Your task to perform on an android device: change the upload size in google photos Image 0: 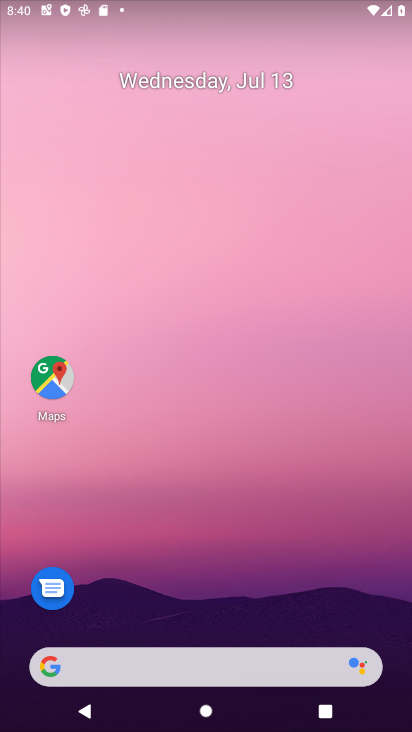
Step 0: drag from (229, 699) to (252, 31)
Your task to perform on an android device: change the upload size in google photos Image 1: 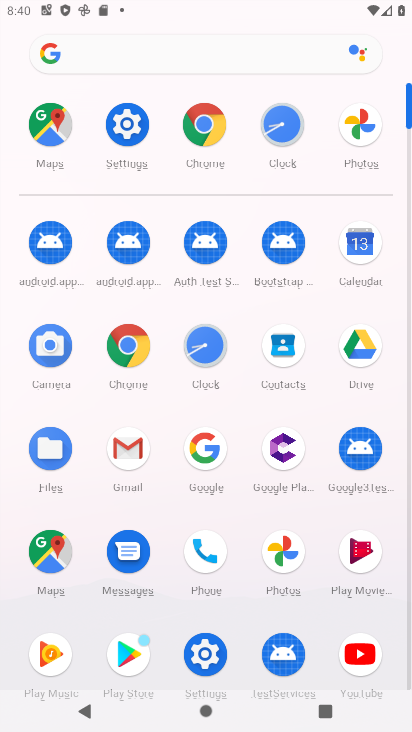
Step 1: click (357, 134)
Your task to perform on an android device: change the upload size in google photos Image 2: 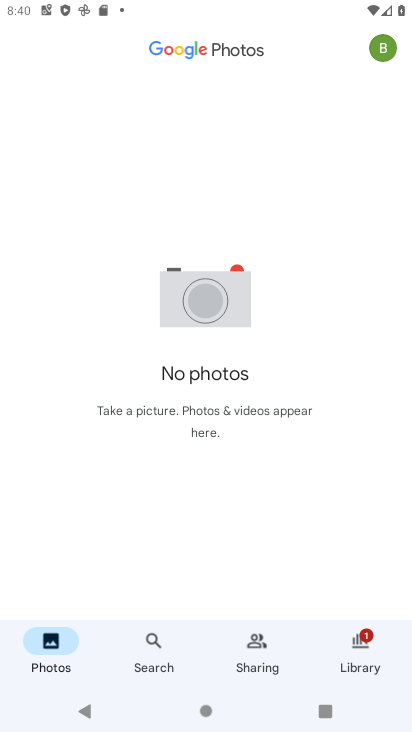
Step 2: click (389, 49)
Your task to perform on an android device: change the upload size in google photos Image 3: 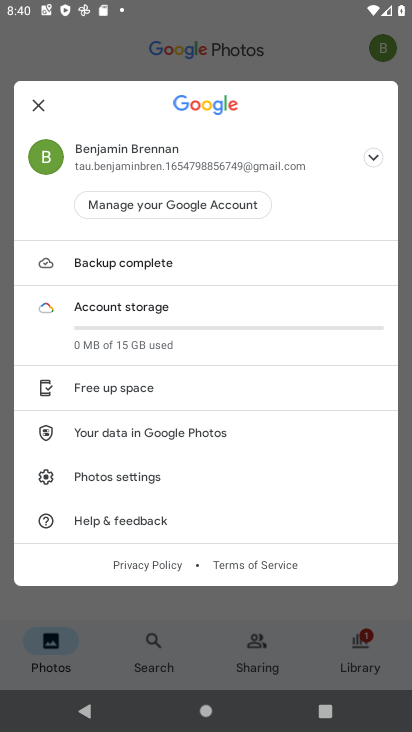
Step 3: click (137, 482)
Your task to perform on an android device: change the upload size in google photos Image 4: 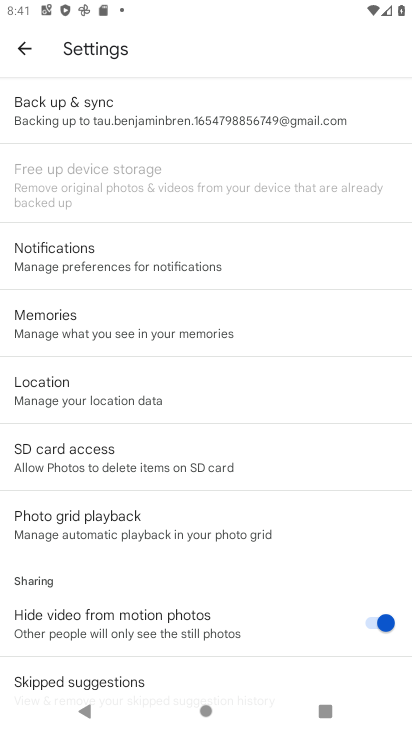
Step 4: click (309, 127)
Your task to perform on an android device: change the upload size in google photos Image 5: 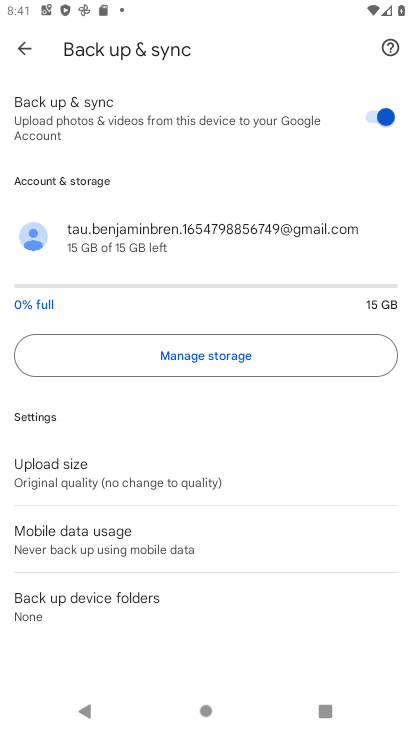
Step 5: click (198, 467)
Your task to perform on an android device: change the upload size in google photos Image 6: 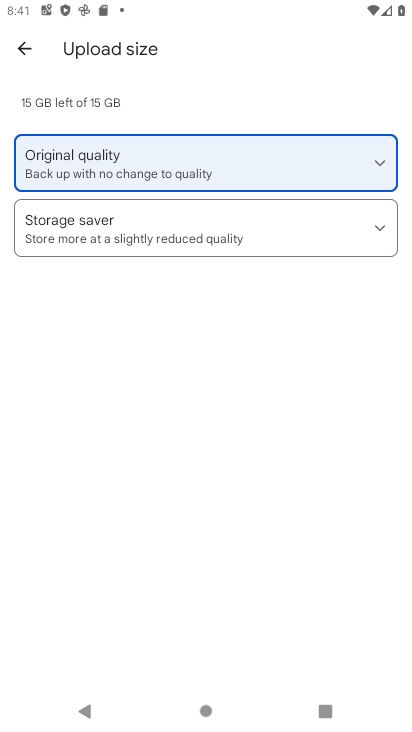
Step 6: click (229, 231)
Your task to perform on an android device: change the upload size in google photos Image 7: 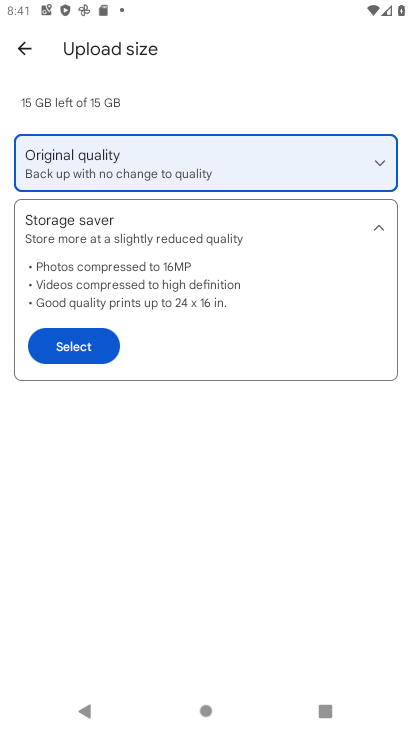
Step 7: click (46, 354)
Your task to perform on an android device: change the upload size in google photos Image 8: 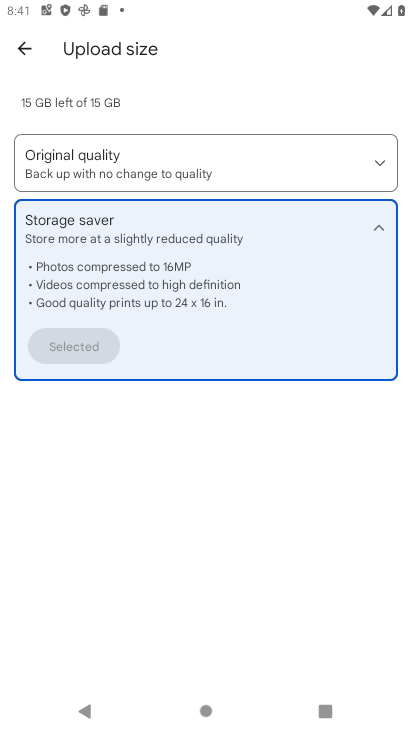
Step 8: task complete